Your task to perform on an android device: turn on showing notifications on the lock screen Image 0: 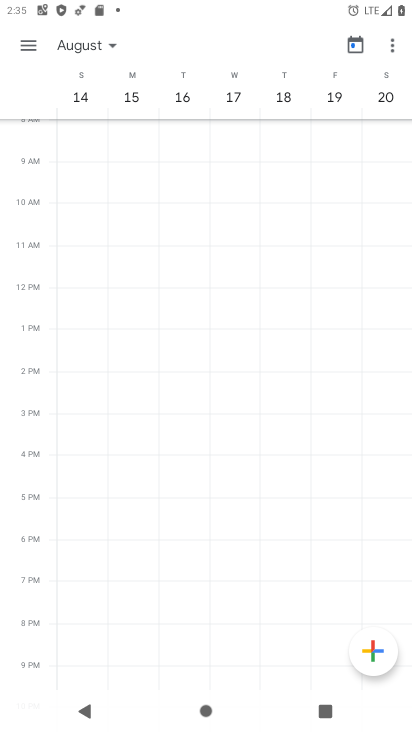
Step 0: press home button
Your task to perform on an android device: turn on showing notifications on the lock screen Image 1: 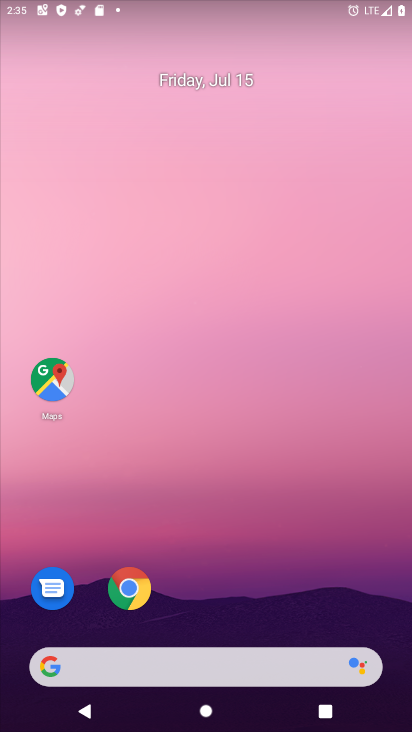
Step 1: drag from (213, 659) to (193, 124)
Your task to perform on an android device: turn on showing notifications on the lock screen Image 2: 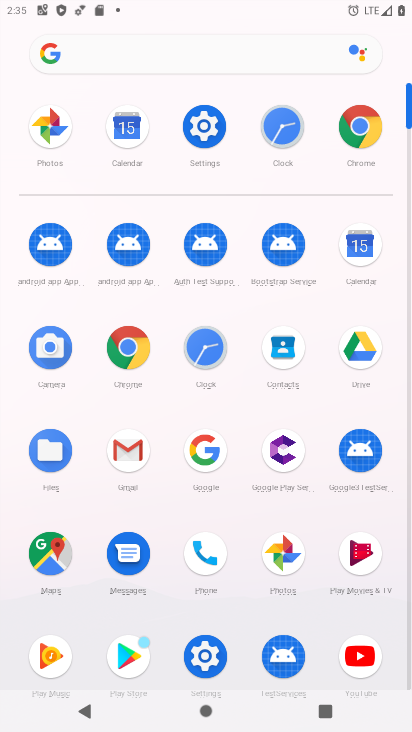
Step 2: click (204, 121)
Your task to perform on an android device: turn on showing notifications on the lock screen Image 3: 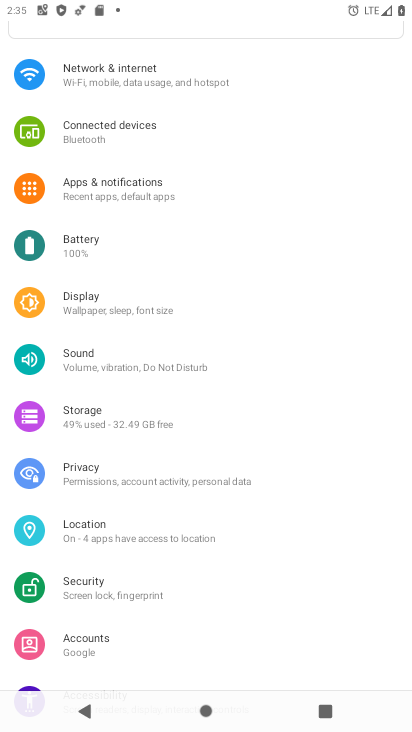
Step 3: click (116, 201)
Your task to perform on an android device: turn on showing notifications on the lock screen Image 4: 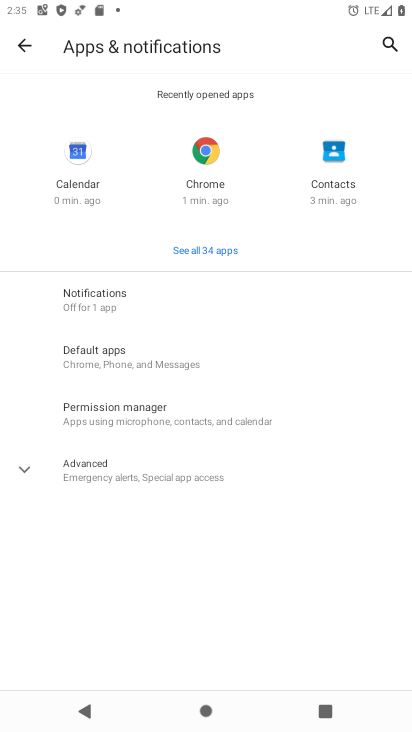
Step 4: click (87, 298)
Your task to perform on an android device: turn on showing notifications on the lock screen Image 5: 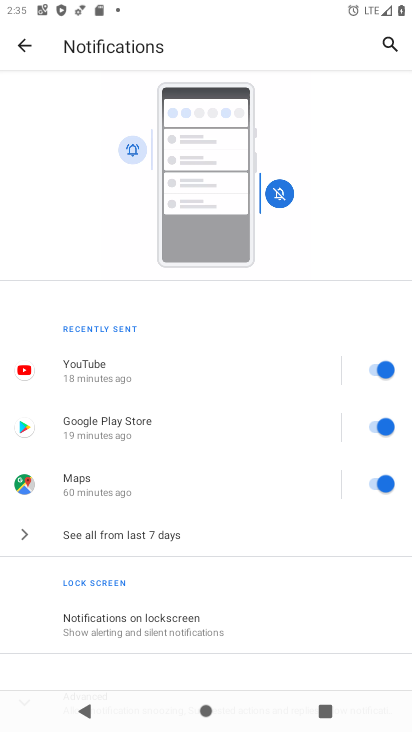
Step 5: drag from (145, 630) to (214, 428)
Your task to perform on an android device: turn on showing notifications on the lock screen Image 6: 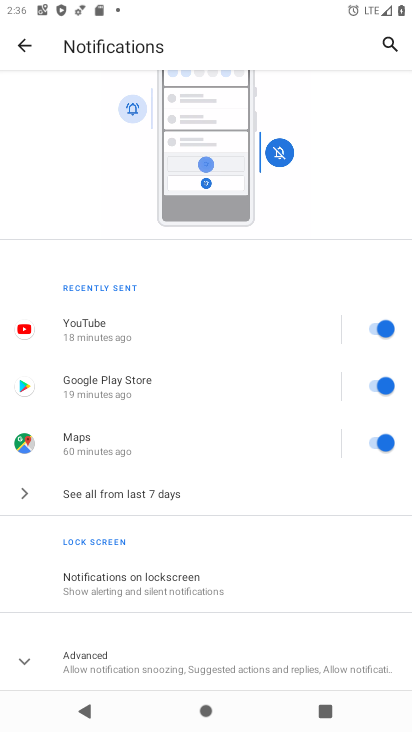
Step 6: click (158, 570)
Your task to perform on an android device: turn on showing notifications on the lock screen Image 7: 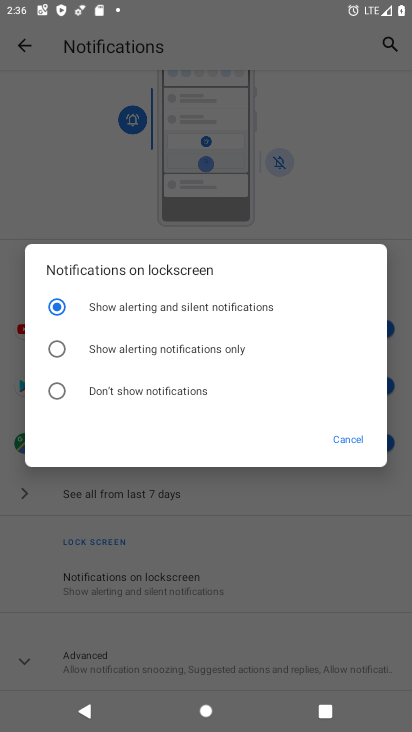
Step 7: click (58, 309)
Your task to perform on an android device: turn on showing notifications on the lock screen Image 8: 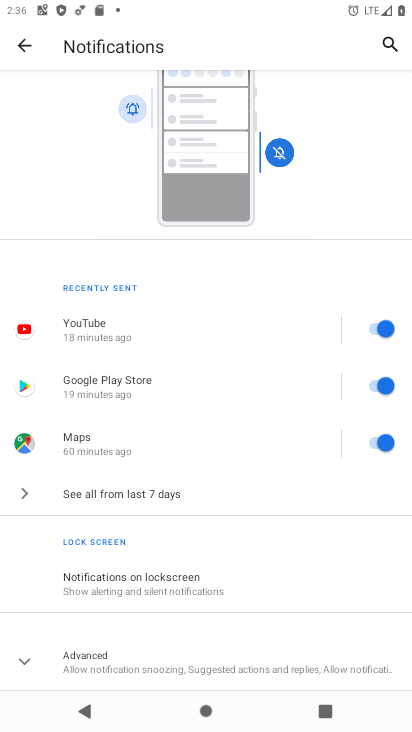
Step 8: task complete